Your task to perform on an android device: Open Wikipedia Image 0: 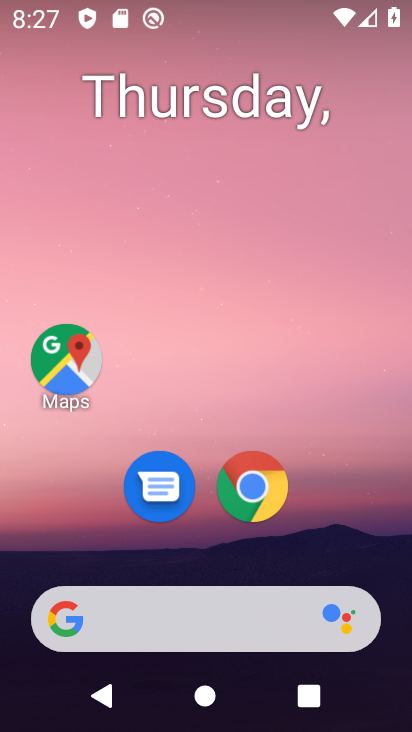
Step 0: click (254, 482)
Your task to perform on an android device: Open Wikipedia Image 1: 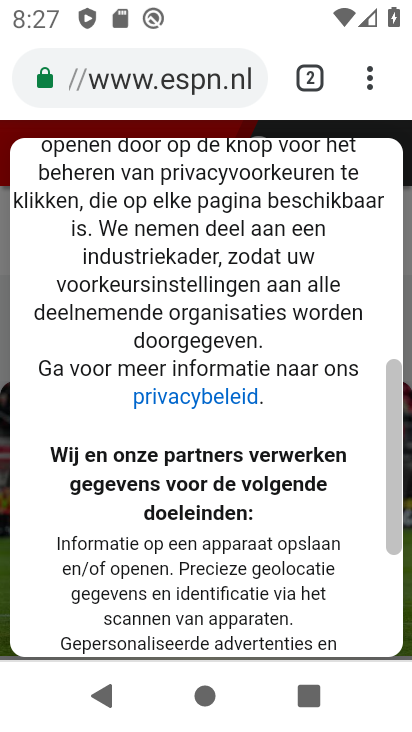
Step 1: click (304, 75)
Your task to perform on an android device: Open Wikipedia Image 2: 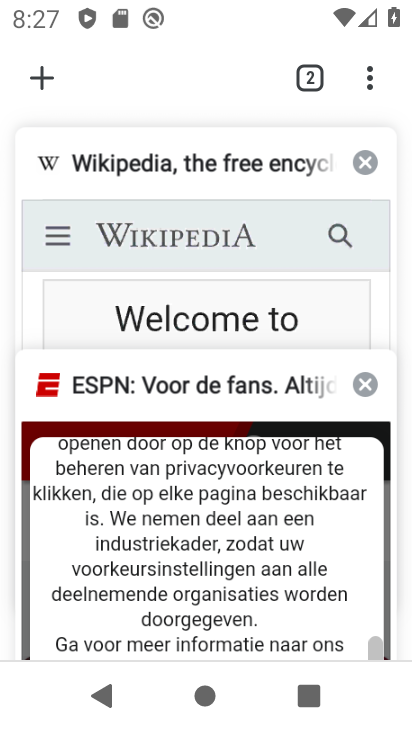
Step 2: click (147, 164)
Your task to perform on an android device: Open Wikipedia Image 3: 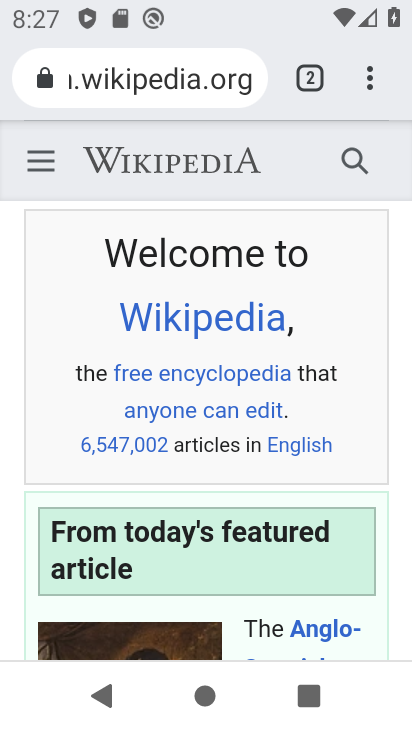
Step 3: task complete